Your task to perform on an android device: Open Youtube and go to the subscriptions tab Image 0: 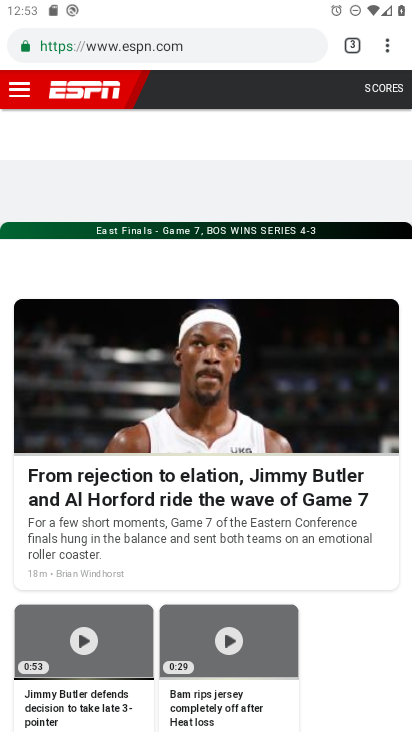
Step 0: press home button
Your task to perform on an android device: Open Youtube and go to the subscriptions tab Image 1: 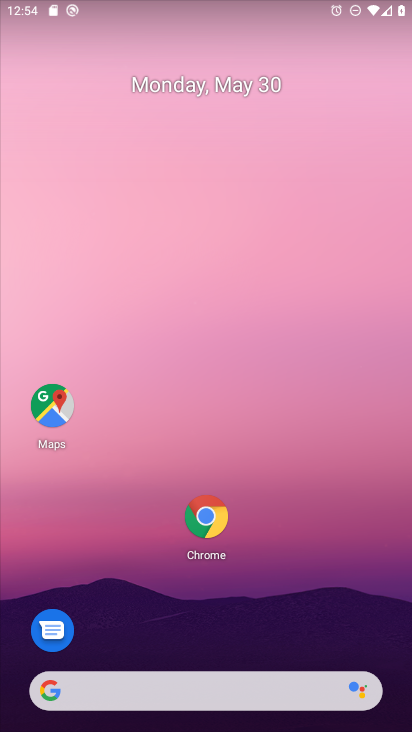
Step 1: drag from (186, 689) to (338, 10)
Your task to perform on an android device: Open Youtube and go to the subscriptions tab Image 2: 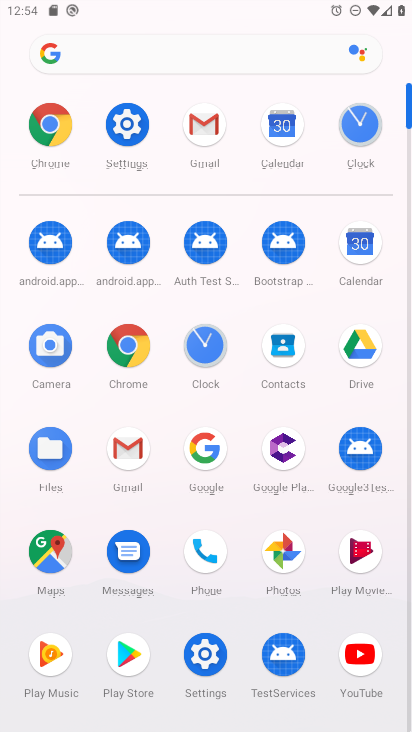
Step 2: click (358, 661)
Your task to perform on an android device: Open Youtube and go to the subscriptions tab Image 3: 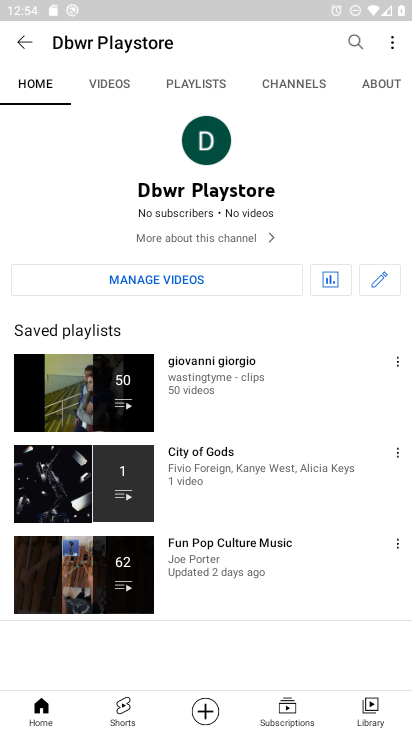
Step 3: click (302, 716)
Your task to perform on an android device: Open Youtube and go to the subscriptions tab Image 4: 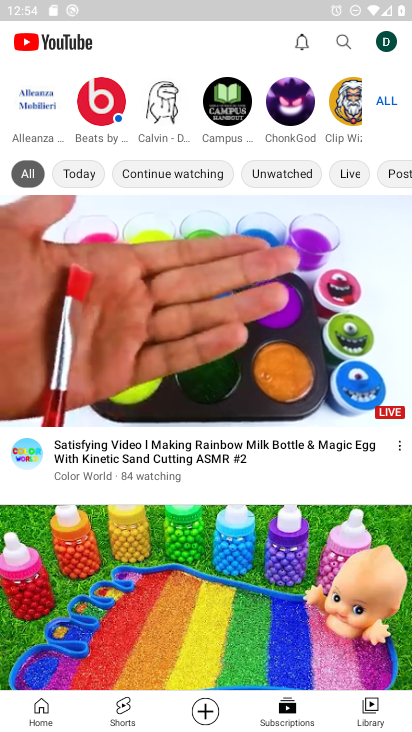
Step 4: task complete